Your task to perform on an android device: Go to ESPN.com Image 0: 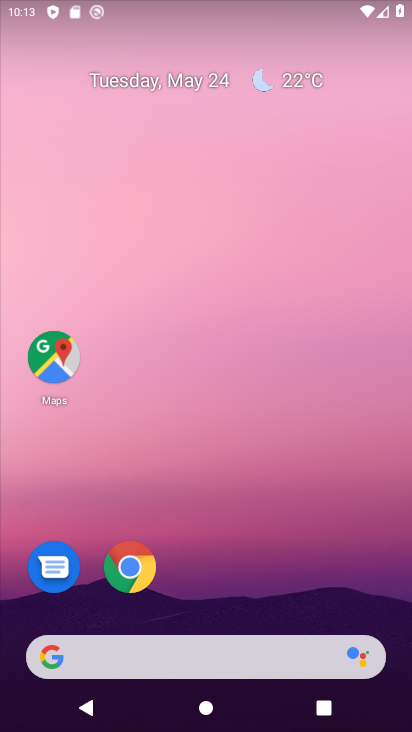
Step 0: click (145, 571)
Your task to perform on an android device: Go to ESPN.com Image 1: 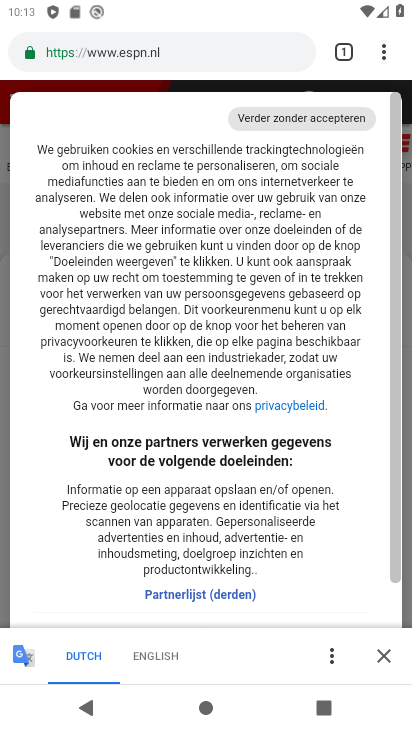
Step 1: drag from (317, 591) to (283, 88)
Your task to perform on an android device: Go to ESPN.com Image 2: 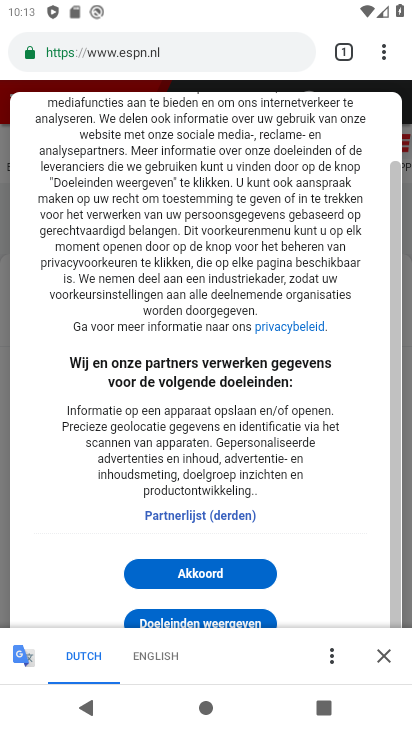
Step 2: click (224, 579)
Your task to perform on an android device: Go to ESPN.com Image 3: 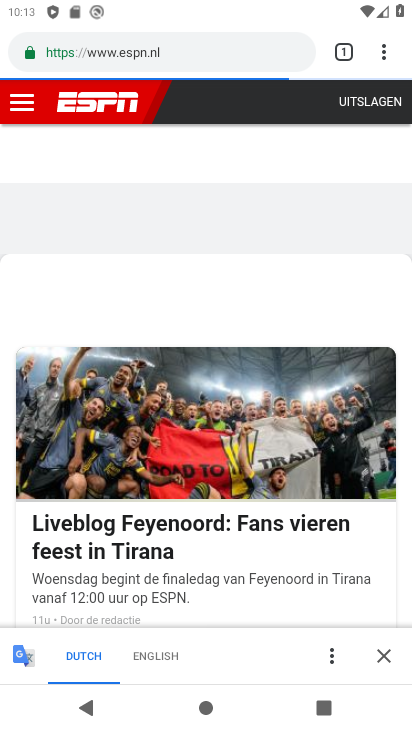
Step 3: task complete